Your task to perform on an android device: Go to location settings Image 0: 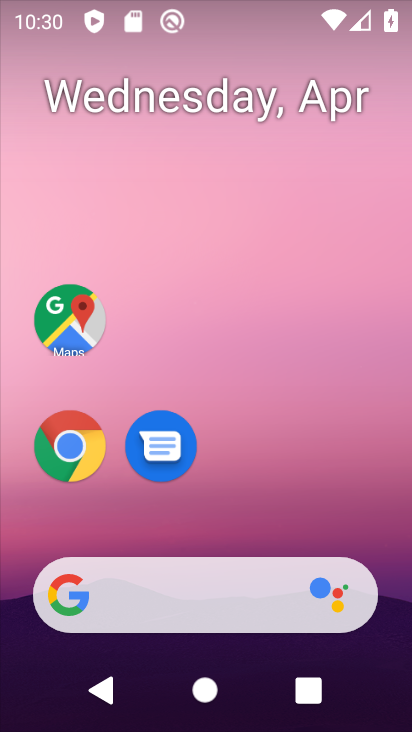
Step 0: drag from (200, 514) to (189, 28)
Your task to perform on an android device: Go to location settings Image 1: 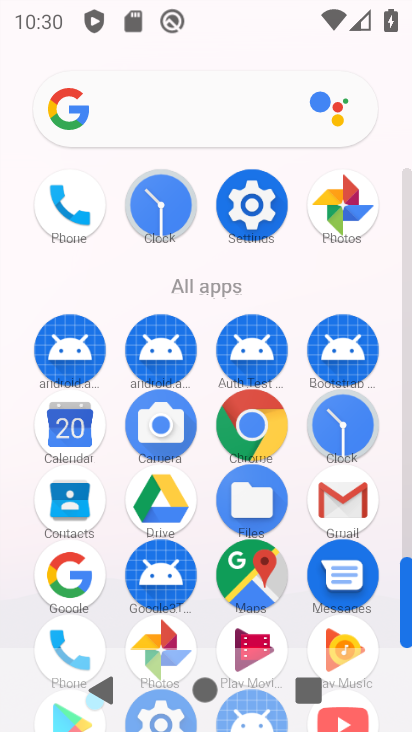
Step 1: click (272, 210)
Your task to perform on an android device: Go to location settings Image 2: 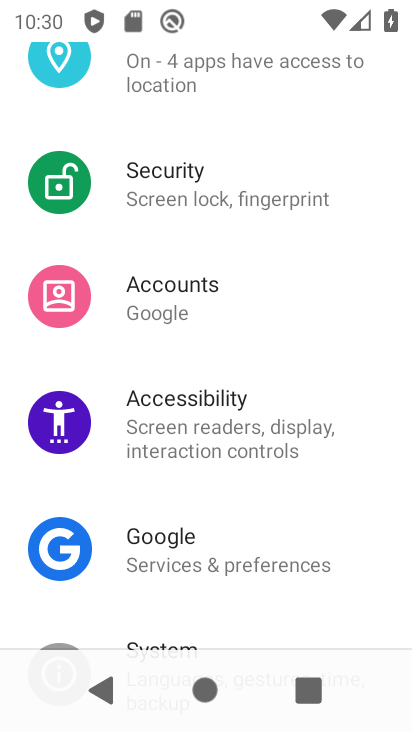
Step 2: drag from (182, 185) to (161, 553)
Your task to perform on an android device: Go to location settings Image 3: 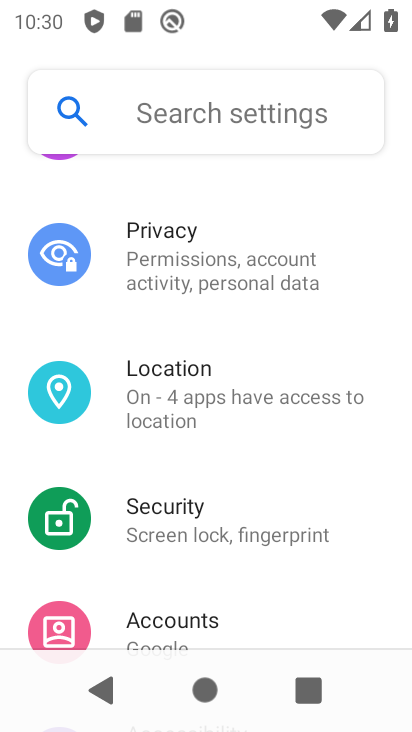
Step 3: click (125, 388)
Your task to perform on an android device: Go to location settings Image 4: 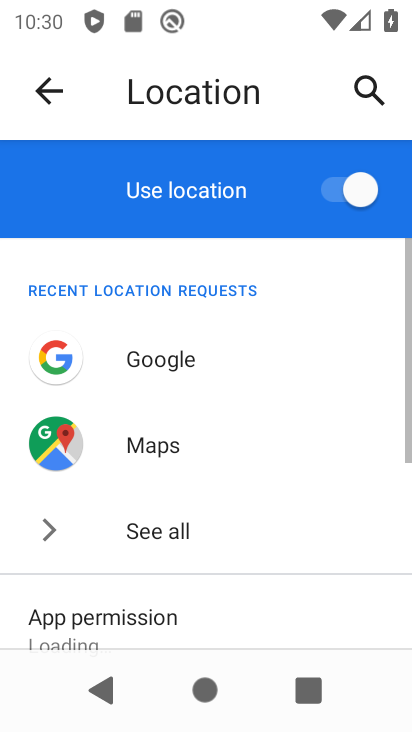
Step 4: drag from (201, 527) to (181, 109)
Your task to perform on an android device: Go to location settings Image 5: 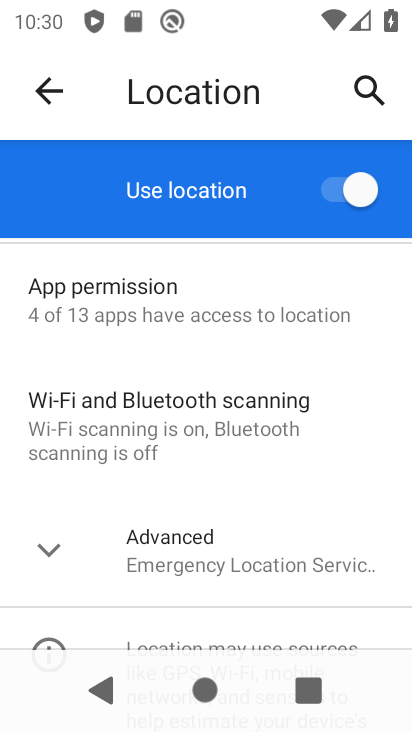
Step 5: click (221, 523)
Your task to perform on an android device: Go to location settings Image 6: 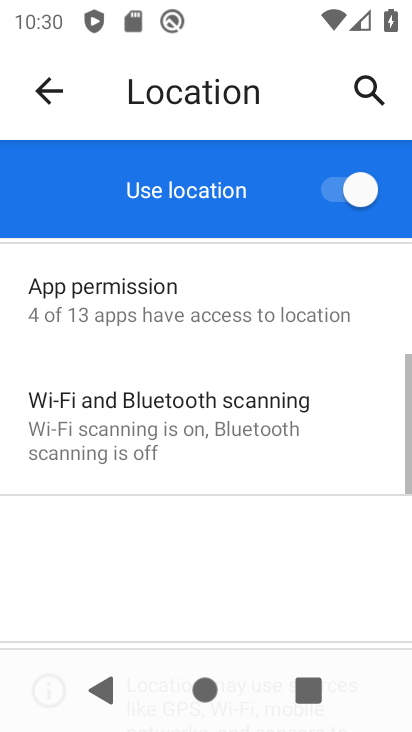
Step 6: task complete